Your task to perform on an android device: Open the Play Movies app and select the watchlist tab. Image 0: 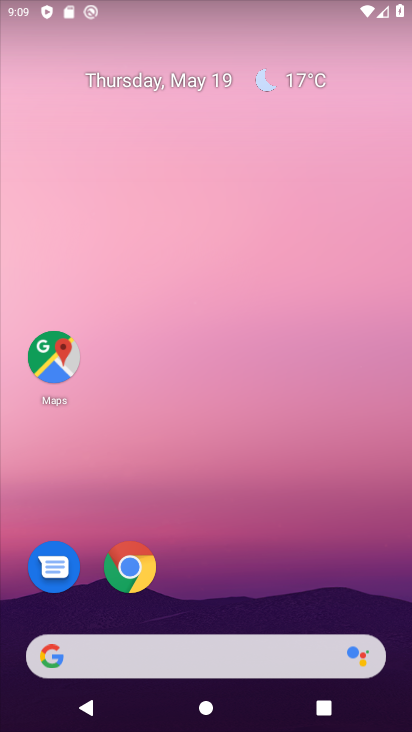
Step 0: drag from (277, 582) to (110, 30)
Your task to perform on an android device: Open the Play Movies app and select the watchlist tab. Image 1: 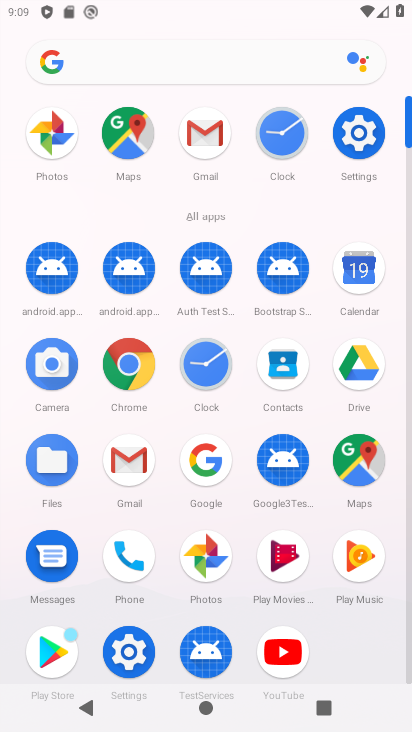
Step 1: click (45, 652)
Your task to perform on an android device: Open the Play Movies app and select the watchlist tab. Image 2: 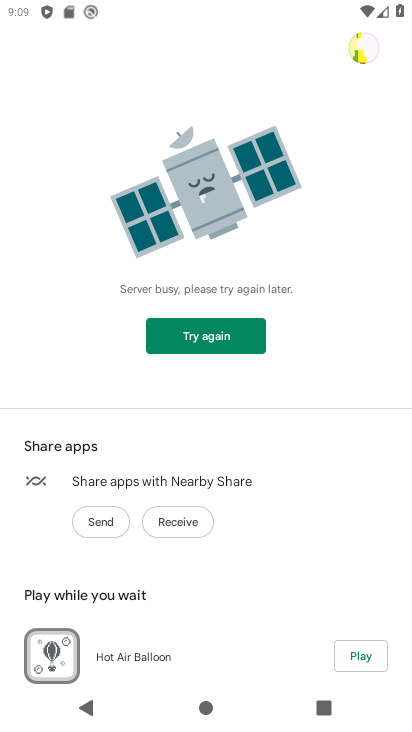
Step 2: press home button
Your task to perform on an android device: Open the Play Movies app and select the watchlist tab. Image 3: 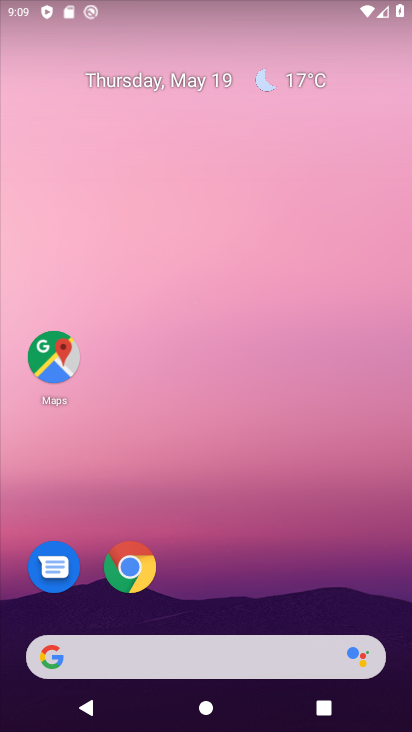
Step 3: drag from (300, 604) to (312, 88)
Your task to perform on an android device: Open the Play Movies app and select the watchlist tab. Image 4: 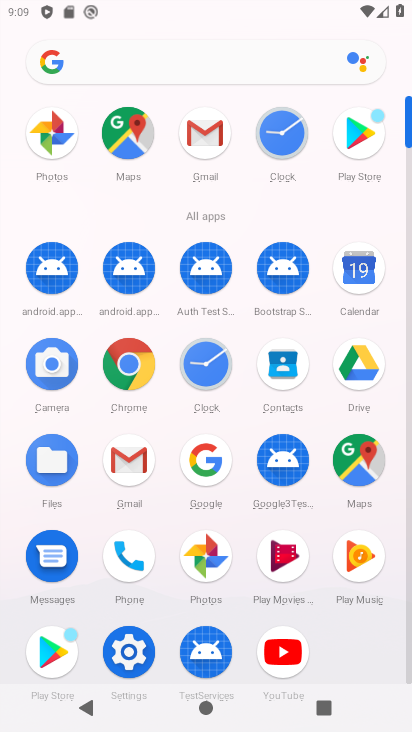
Step 4: click (271, 557)
Your task to perform on an android device: Open the Play Movies app and select the watchlist tab. Image 5: 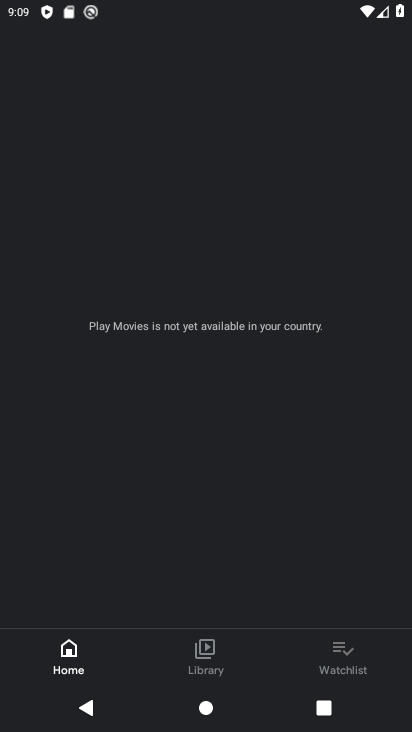
Step 5: click (342, 673)
Your task to perform on an android device: Open the Play Movies app and select the watchlist tab. Image 6: 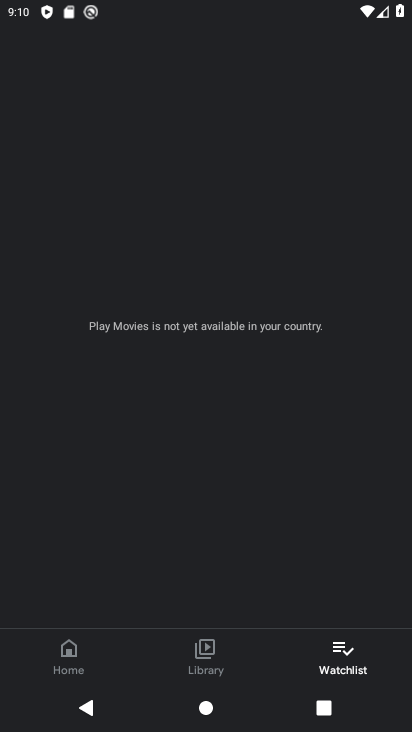
Step 6: task complete